Your task to perform on an android device: What's the weather? Image 0: 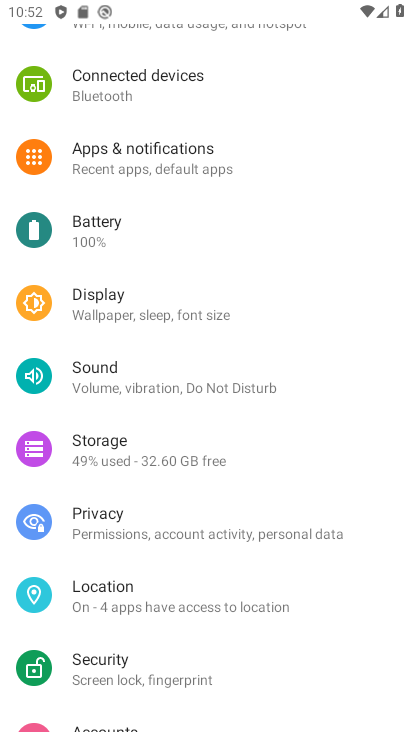
Step 0: press home button
Your task to perform on an android device: What's the weather? Image 1: 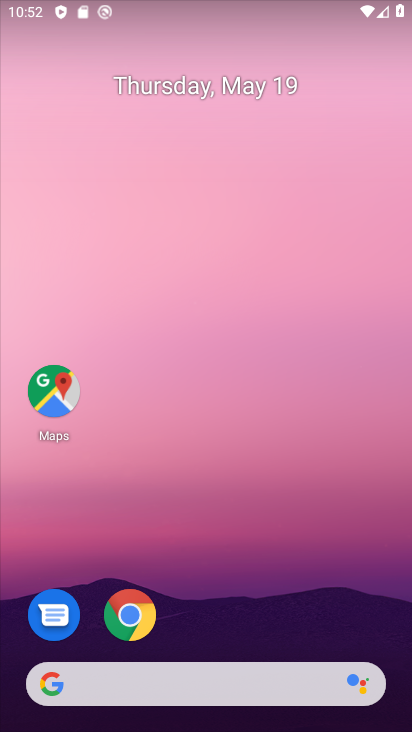
Step 1: drag from (14, 223) to (403, 255)
Your task to perform on an android device: What's the weather? Image 2: 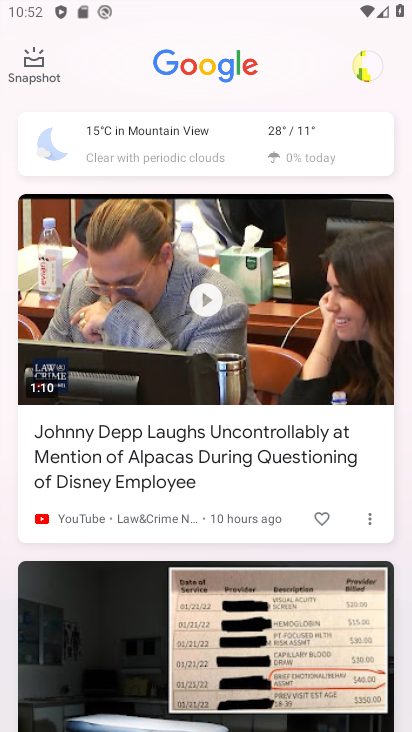
Step 2: click (312, 129)
Your task to perform on an android device: What's the weather? Image 3: 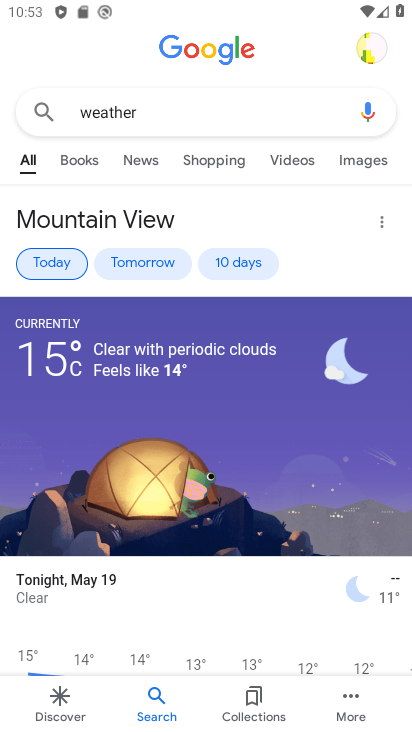
Step 3: task complete